Your task to perform on an android device: What is the news today? Image 0: 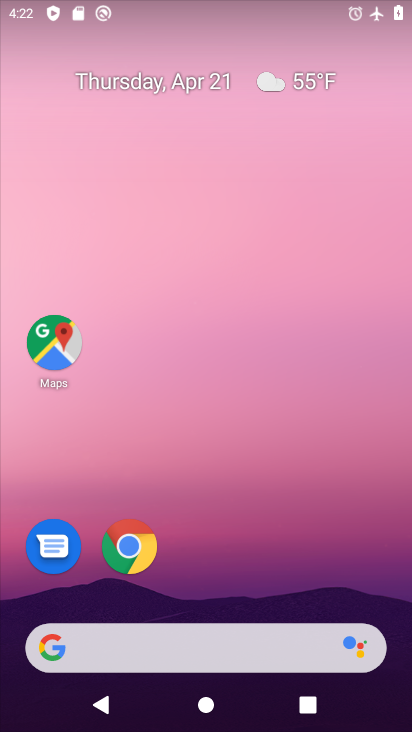
Step 0: drag from (261, 555) to (294, 153)
Your task to perform on an android device: What is the news today? Image 1: 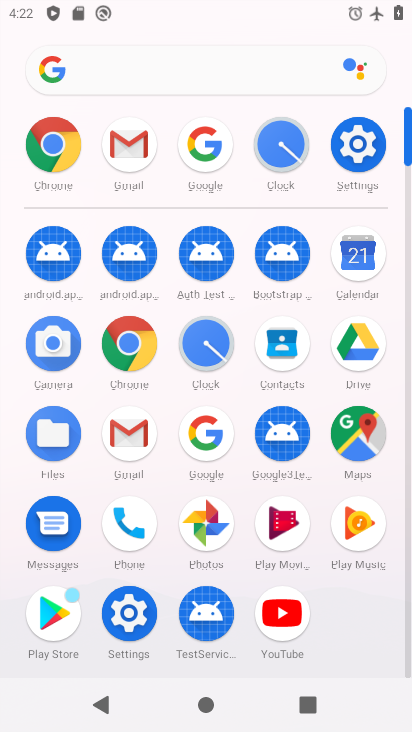
Step 1: click (141, 353)
Your task to perform on an android device: What is the news today? Image 2: 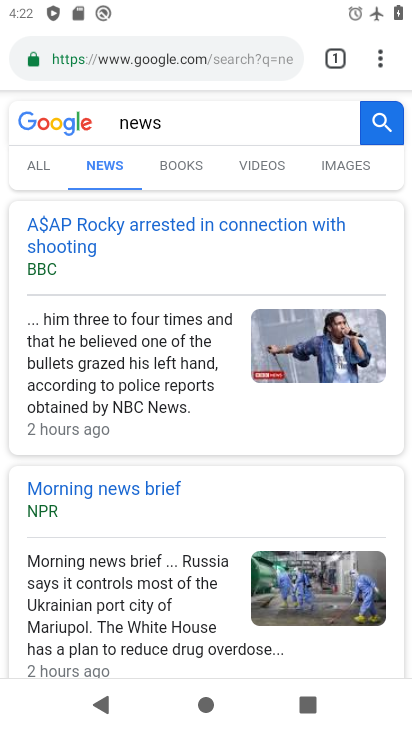
Step 2: task complete